Your task to perform on an android device: change alarm snooze length Image 0: 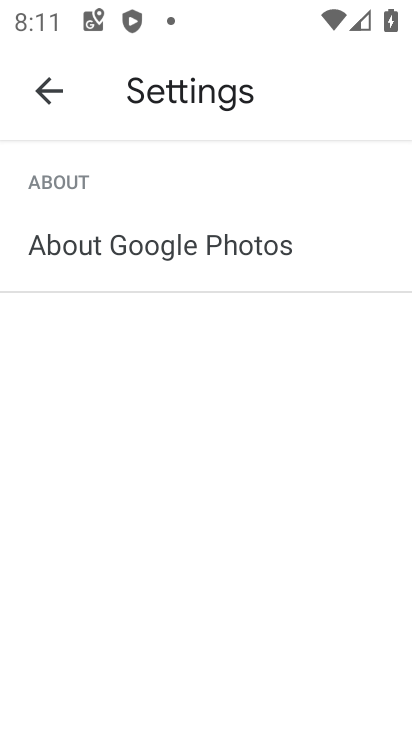
Step 0: press home button
Your task to perform on an android device: change alarm snooze length Image 1: 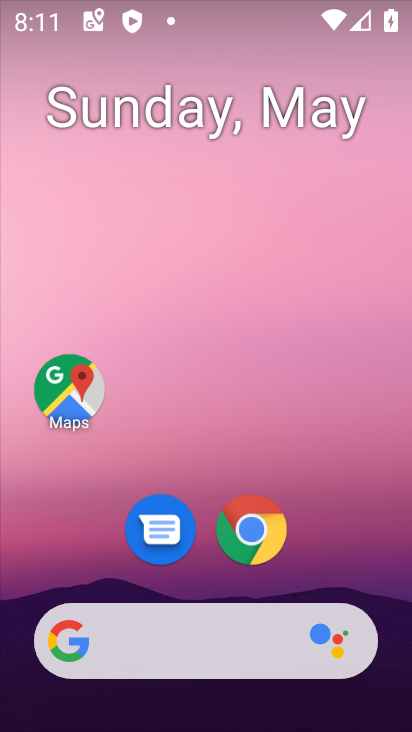
Step 1: drag from (391, 592) to (406, 5)
Your task to perform on an android device: change alarm snooze length Image 2: 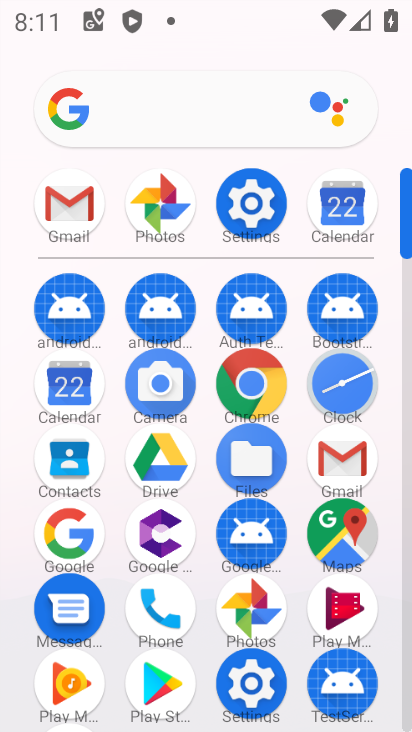
Step 2: click (346, 391)
Your task to perform on an android device: change alarm snooze length Image 3: 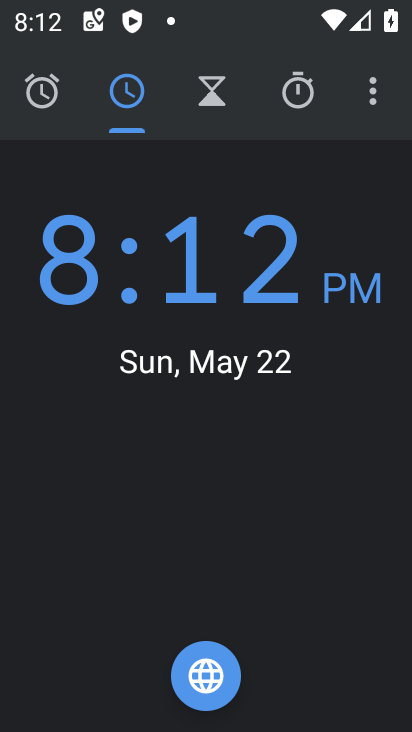
Step 3: click (376, 100)
Your task to perform on an android device: change alarm snooze length Image 4: 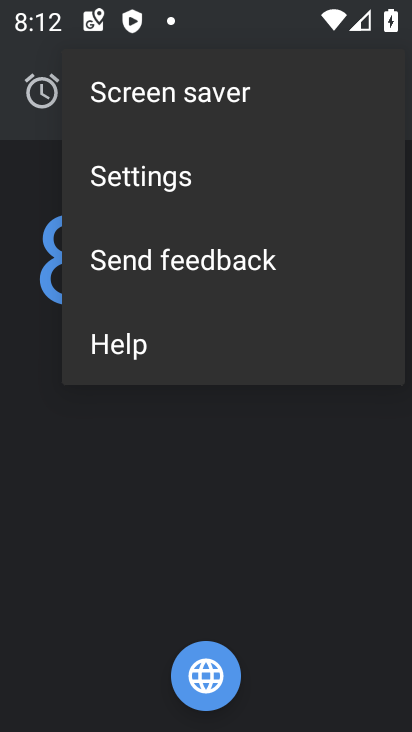
Step 4: click (151, 188)
Your task to perform on an android device: change alarm snooze length Image 5: 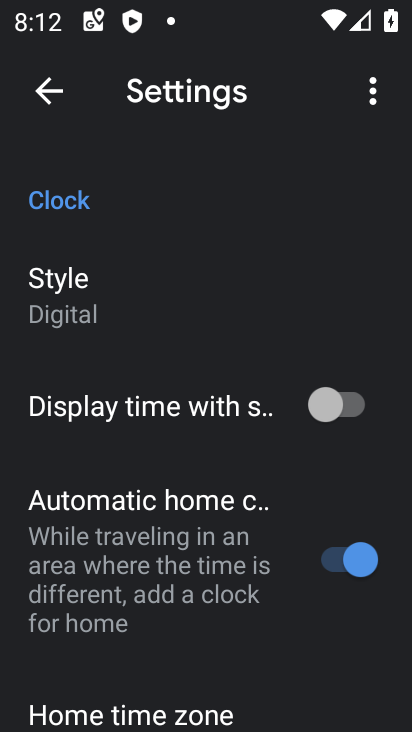
Step 5: drag from (155, 568) to (130, 163)
Your task to perform on an android device: change alarm snooze length Image 6: 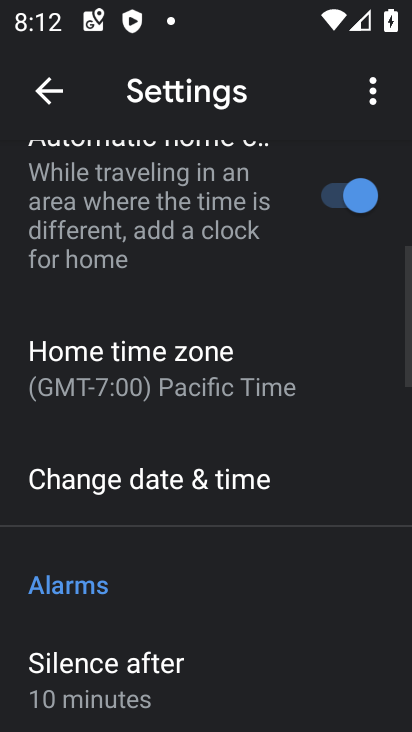
Step 6: drag from (134, 542) to (151, 112)
Your task to perform on an android device: change alarm snooze length Image 7: 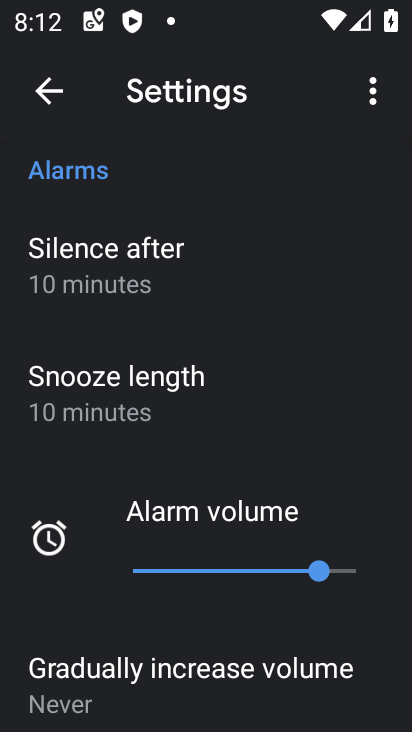
Step 7: drag from (218, 607) to (205, 294)
Your task to perform on an android device: change alarm snooze length Image 8: 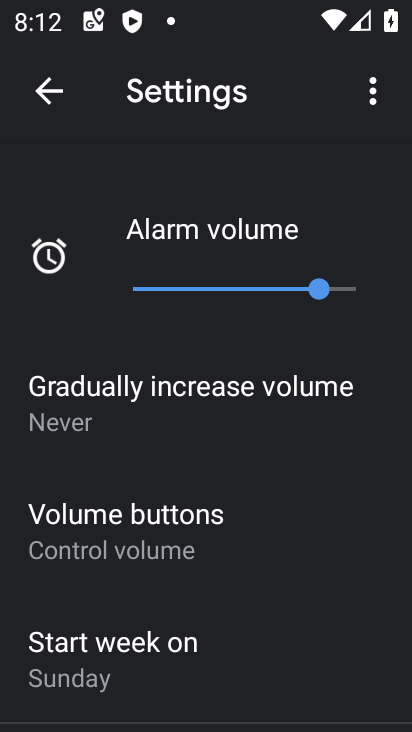
Step 8: drag from (209, 631) to (199, 296)
Your task to perform on an android device: change alarm snooze length Image 9: 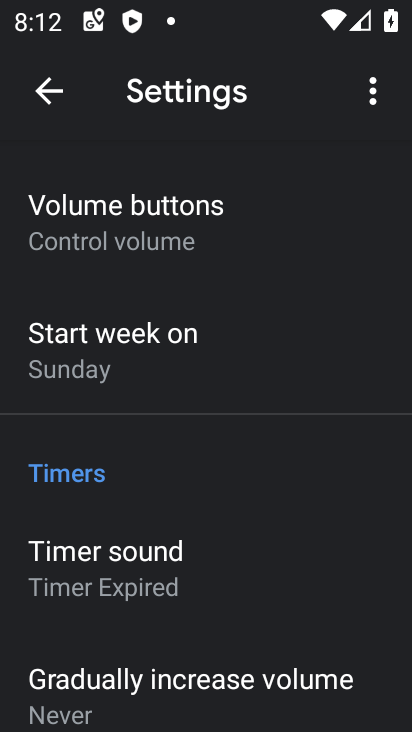
Step 9: drag from (261, 350) to (266, 705)
Your task to perform on an android device: change alarm snooze length Image 10: 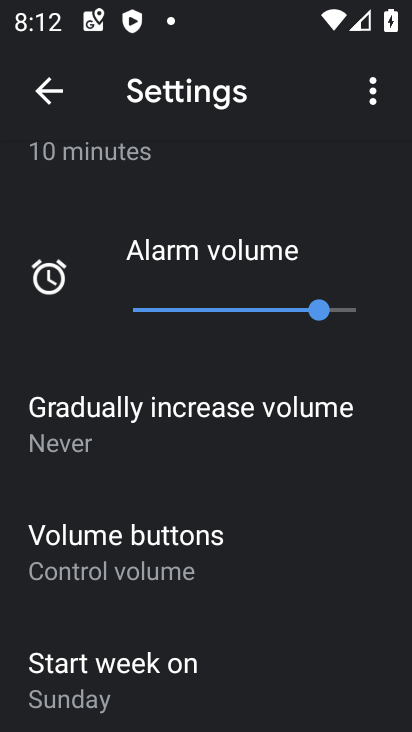
Step 10: drag from (224, 233) to (236, 469)
Your task to perform on an android device: change alarm snooze length Image 11: 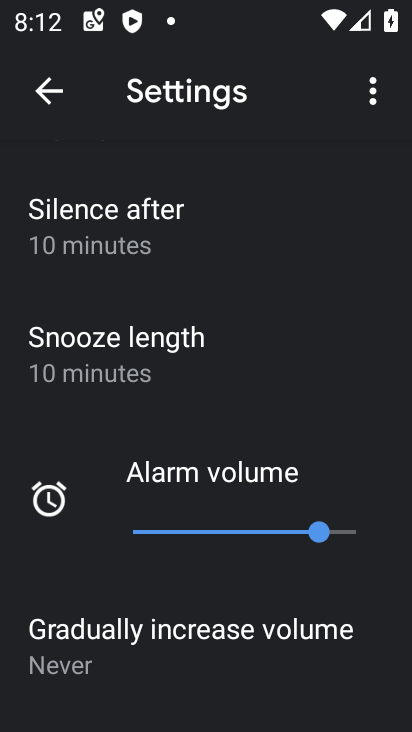
Step 11: click (84, 367)
Your task to perform on an android device: change alarm snooze length Image 12: 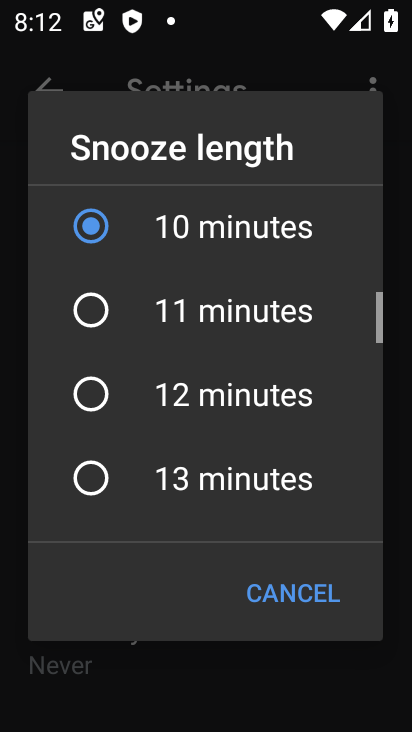
Step 12: click (85, 399)
Your task to perform on an android device: change alarm snooze length Image 13: 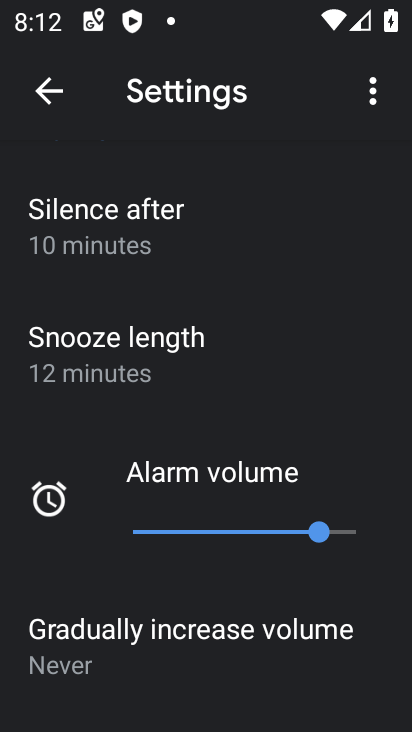
Step 13: task complete